Your task to perform on an android device: Go to display settings Image 0: 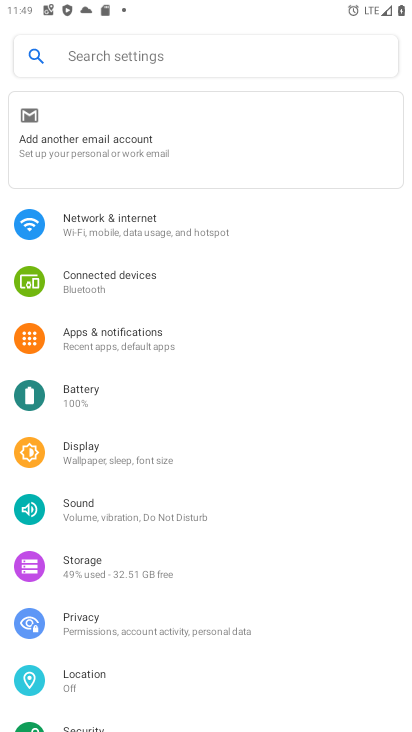
Step 0: press home button
Your task to perform on an android device: Go to display settings Image 1: 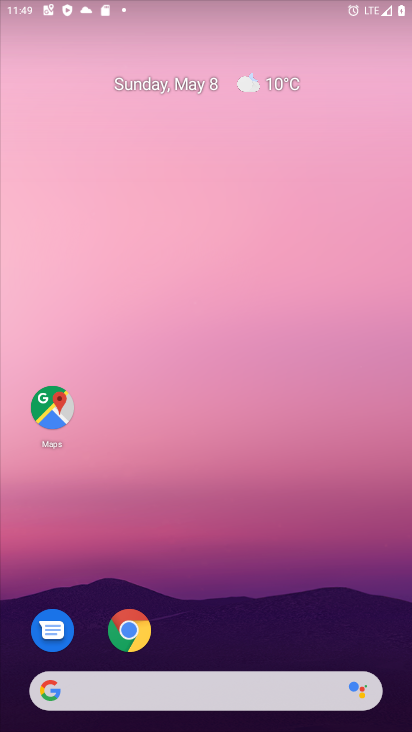
Step 1: drag from (348, 627) to (261, 62)
Your task to perform on an android device: Go to display settings Image 2: 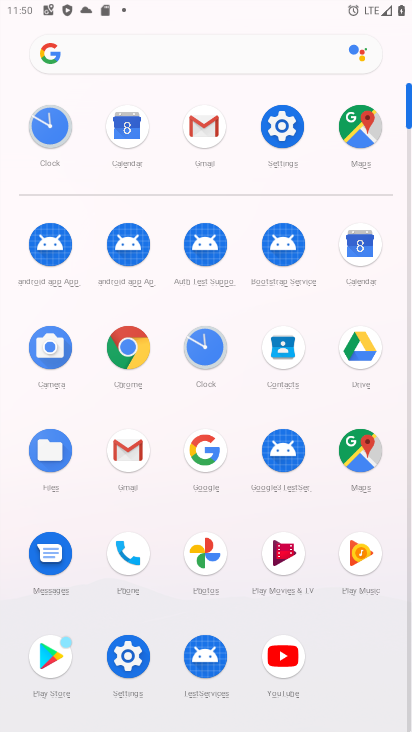
Step 2: click (290, 129)
Your task to perform on an android device: Go to display settings Image 3: 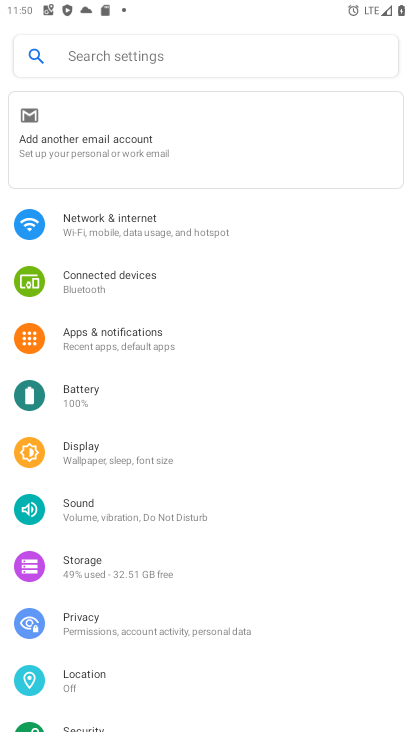
Step 3: click (131, 458)
Your task to perform on an android device: Go to display settings Image 4: 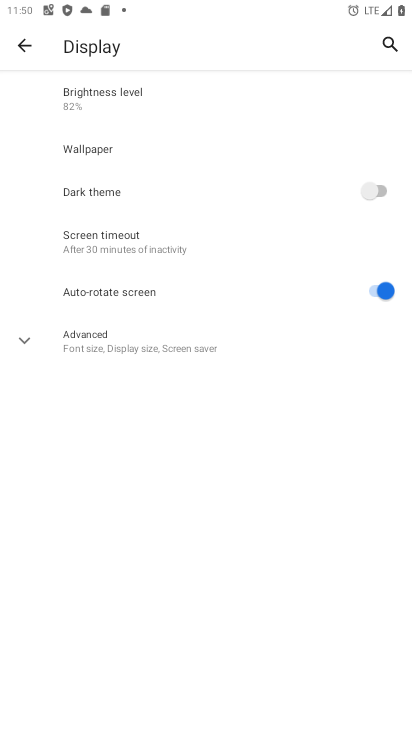
Step 4: task complete